Your task to perform on an android device: change keyboard looks Image 0: 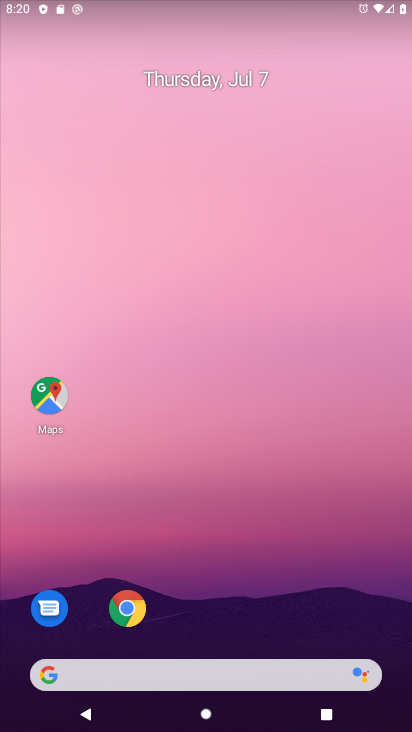
Step 0: drag from (193, 632) to (210, 255)
Your task to perform on an android device: change keyboard looks Image 1: 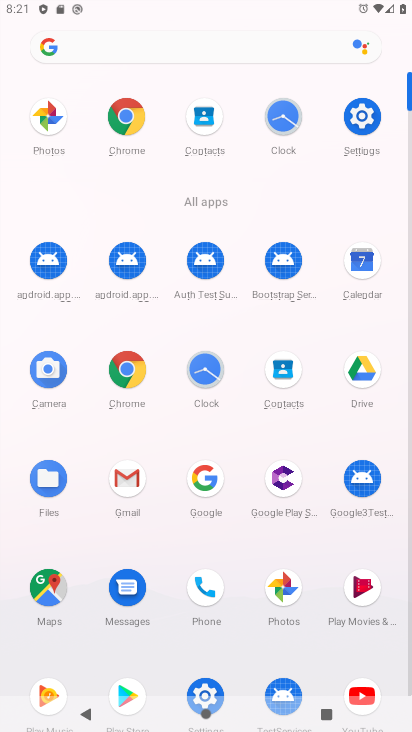
Step 1: click (370, 118)
Your task to perform on an android device: change keyboard looks Image 2: 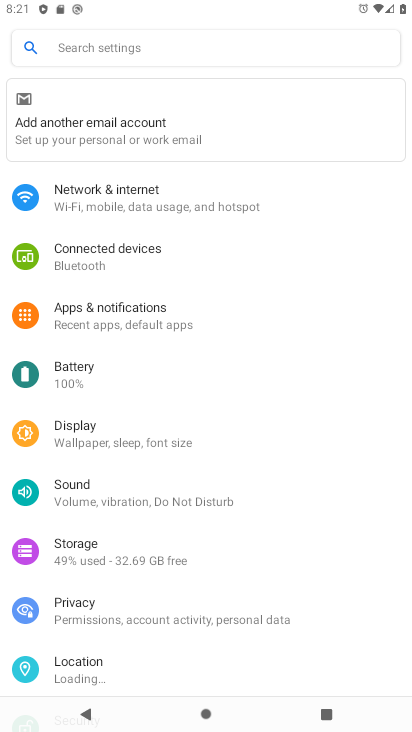
Step 2: drag from (114, 609) to (132, 292)
Your task to perform on an android device: change keyboard looks Image 3: 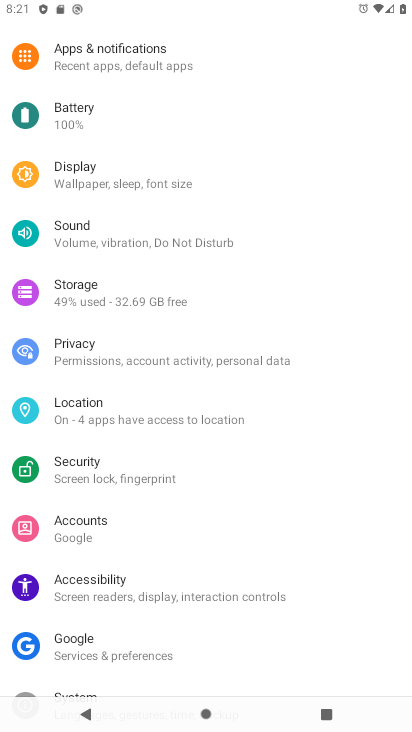
Step 3: drag from (87, 665) to (87, 382)
Your task to perform on an android device: change keyboard looks Image 4: 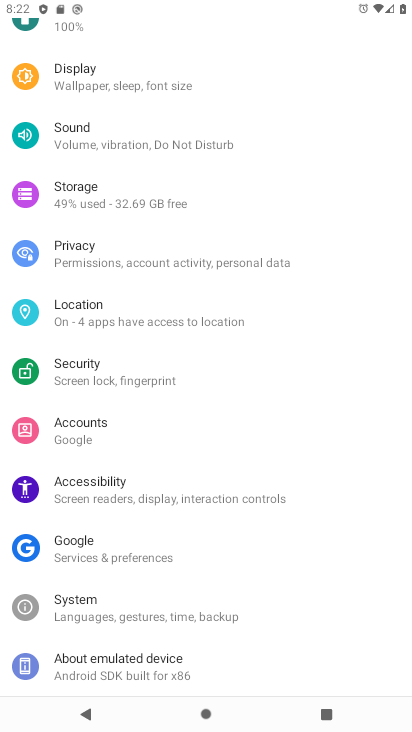
Step 4: click (74, 493)
Your task to perform on an android device: change keyboard looks Image 5: 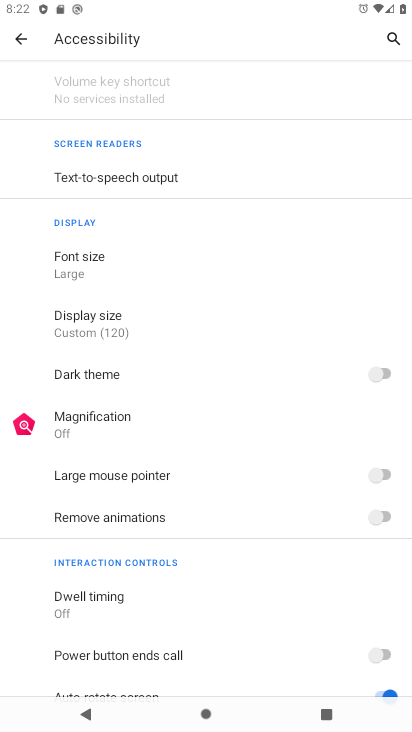
Step 5: click (16, 40)
Your task to perform on an android device: change keyboard looks Image 6: 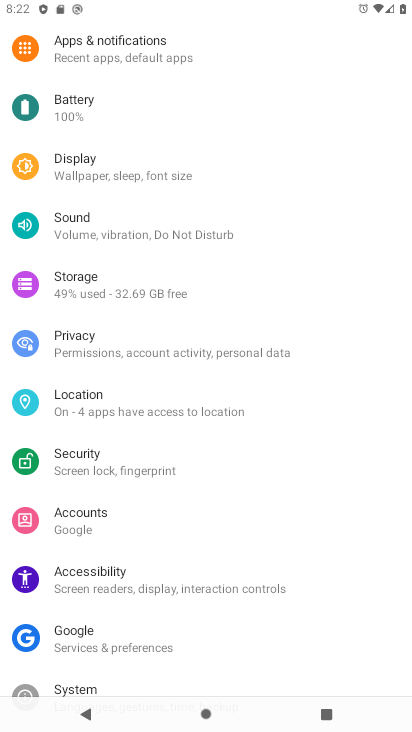
Step 6: drag from (126, 669) to (151, 345)
Your task to perform on an android device: change keyboard looks Image 7: 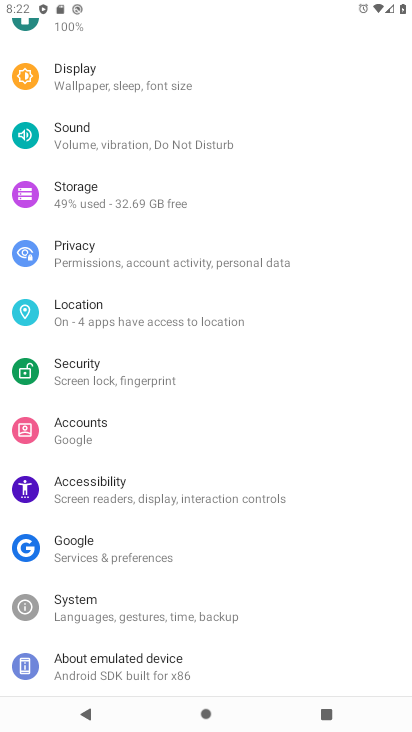
Step 7: click (126, 609)
Your task to perform on an android device: change keyboard looks Image 8: 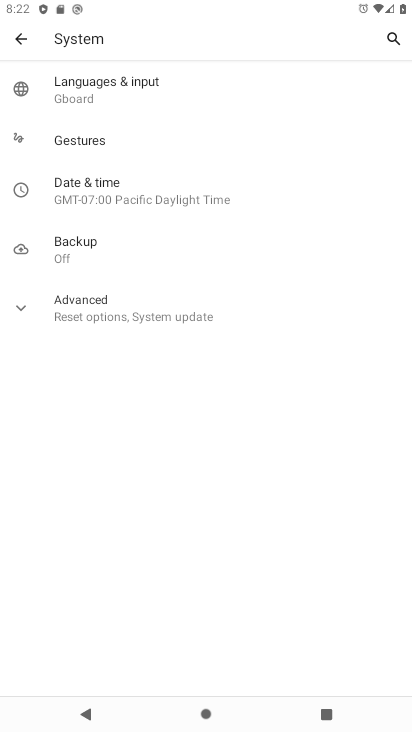
Step 8: click (117, 315)
Your task to perform on an android device: change keyboard looks Image 9: 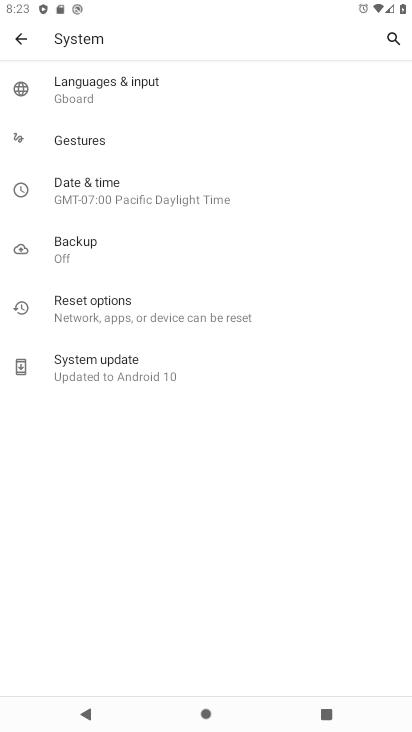
Step 9: click (128, 89)
Your task to perform on an android device: change keyboard looks Image 10: 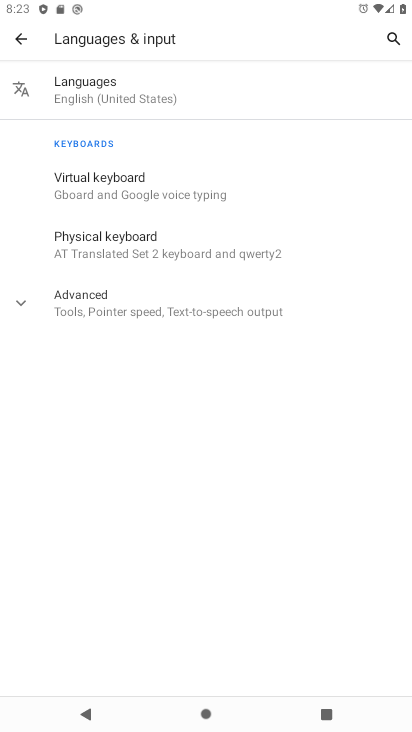
Step 10: click (115, 184)
Your task to perform on an android device: change keyboard looks Image 11: 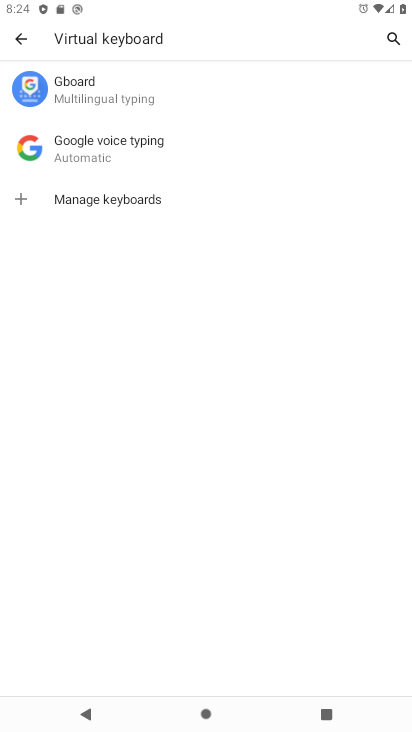
Step 11: click (86, 90)
Your task to perform on an android device: change keyboard looks Image 12: 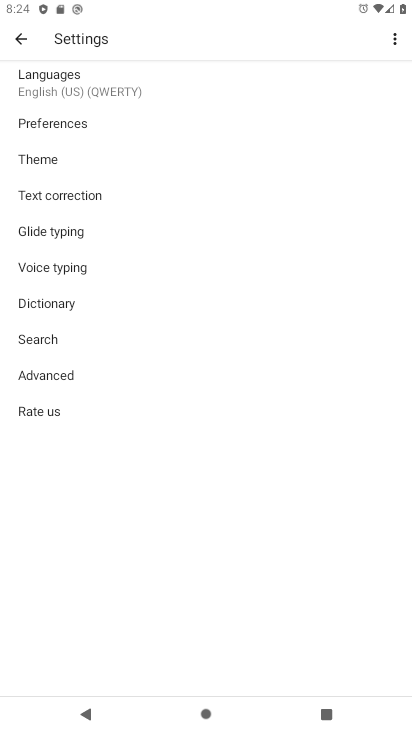
Step 12: click (45, 165)
Your task to perform on an android device: change keyboard looks Image 13: 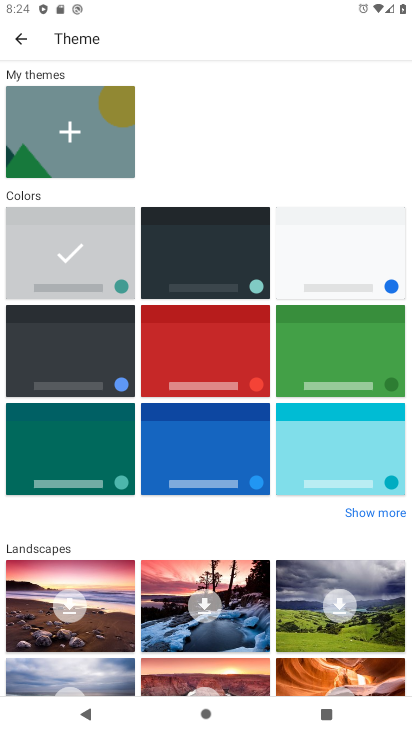
Step 13: click (202, 269)
Your task to perform on an android device: change keyboard looks Image 14: 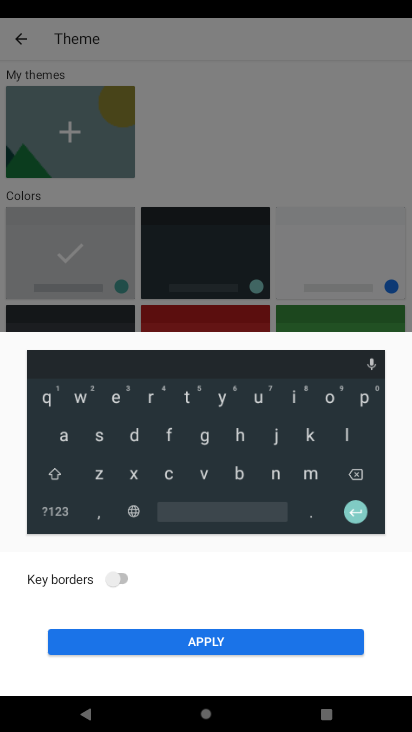
Step 14: click (208, 646)
Your task to perform on an android device: change keyboard looks Image 15: 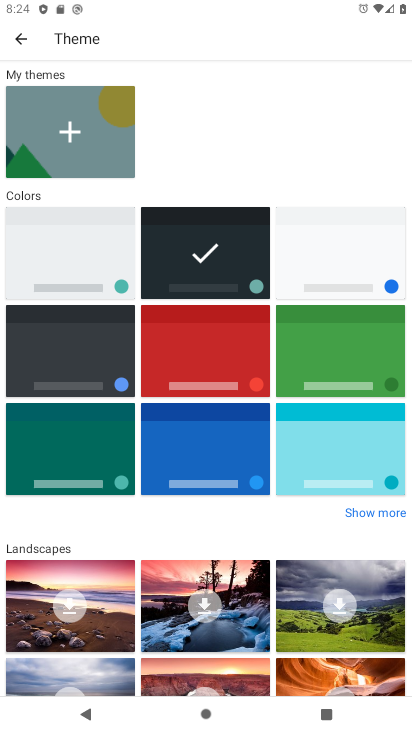
Step 15: task complete